Your task to perform on an android device: Open sound settings Image 0: 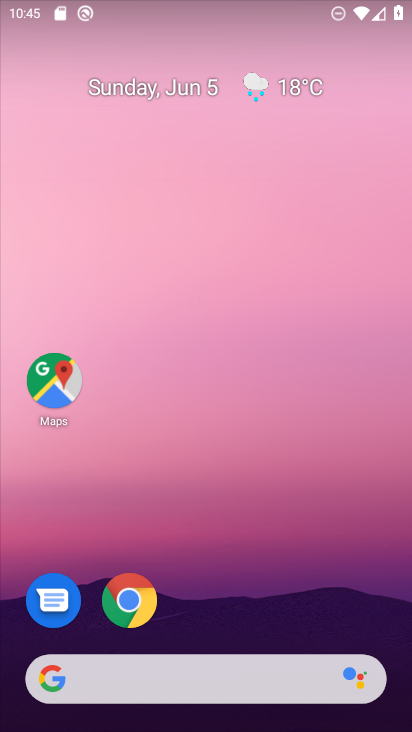
Step 0: drag from (228, 592) to (309, 39)
Your task to perform on an android device: Open sound settings Image 1: 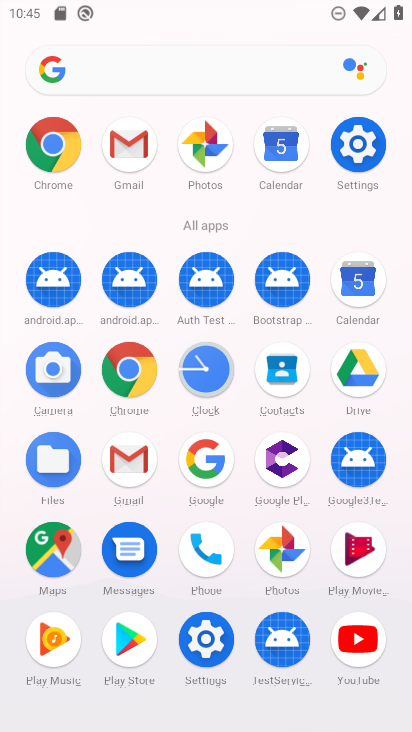
Step 1: click (370, 137)
Your task to perform on an android device: Open sound settings Image 2: 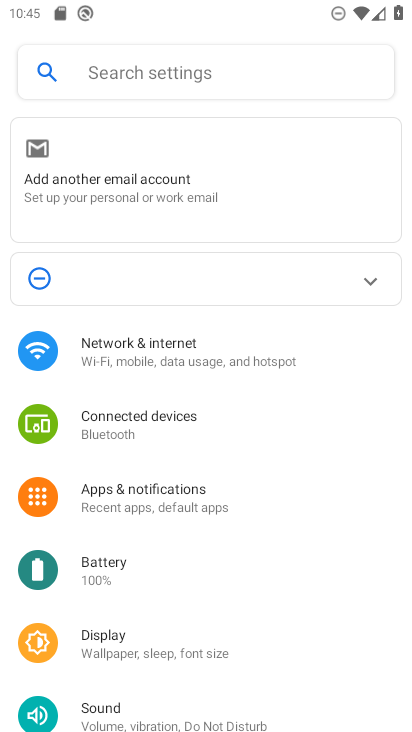
Step 2: click (131, 719)
Your task to perform on an android device: Open sound settings Image 3: 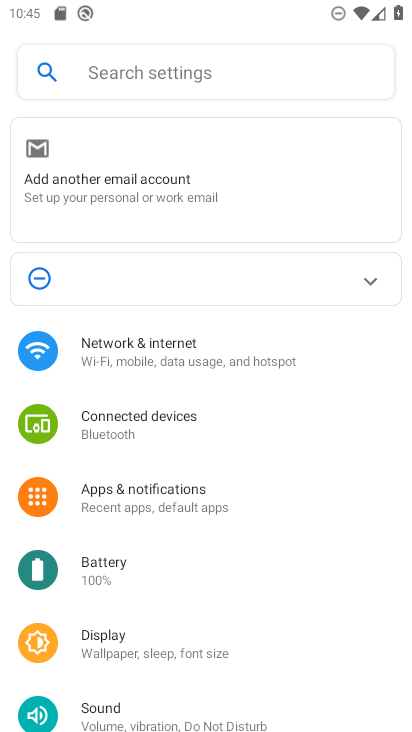
Step 3: task complete